Your task to perform on an android device: set an alarm Image 0: 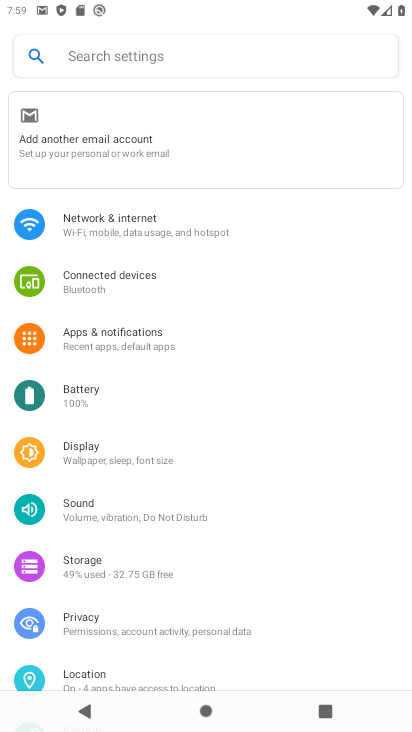
Step 0: press back button
Your task to perform on an android device: set an alarm Image 1: 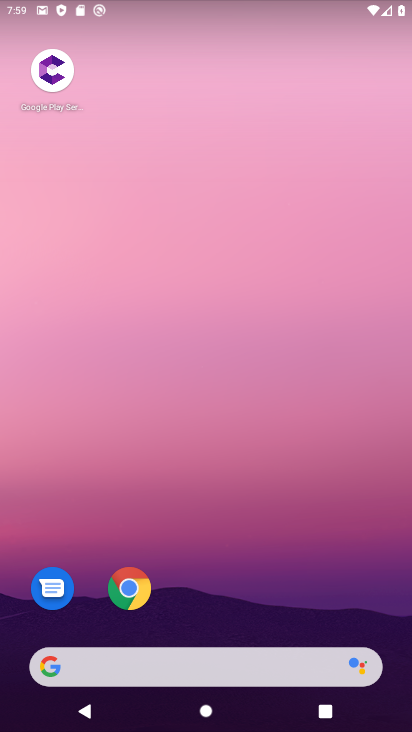
Step 1: drag from (204, 316) to (192, 151)
Your task to perform on an android device: set an alarm Image 2: 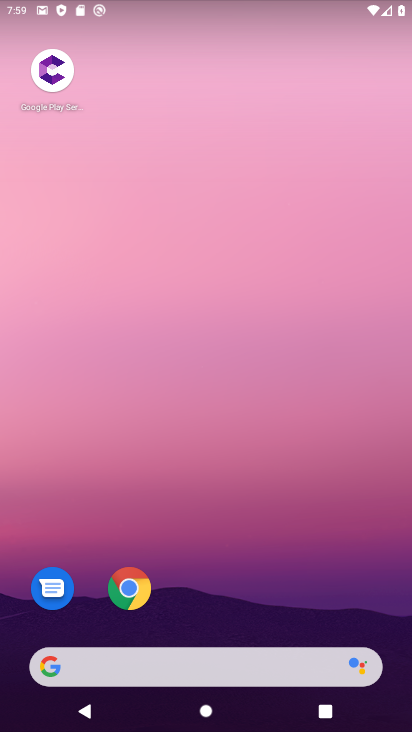
Step 2: drag from (225, 554) to (215, 157)
Your task to perform on an android device: set an alarm Image 3: 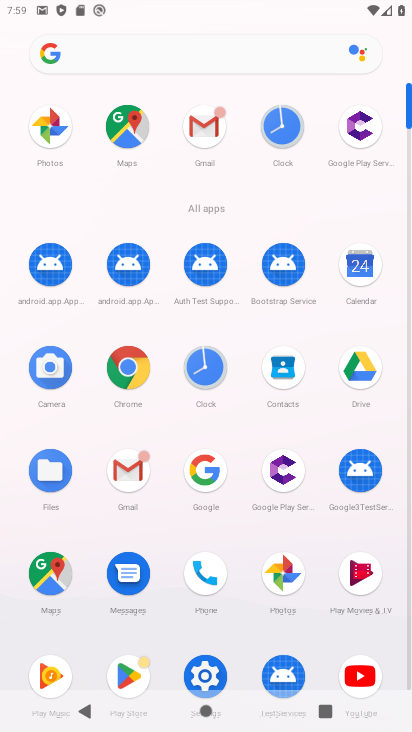
Step 3: drag from (217, 375) to (102, 201)
Your task to perform on an android device: set an alarm Image 4: 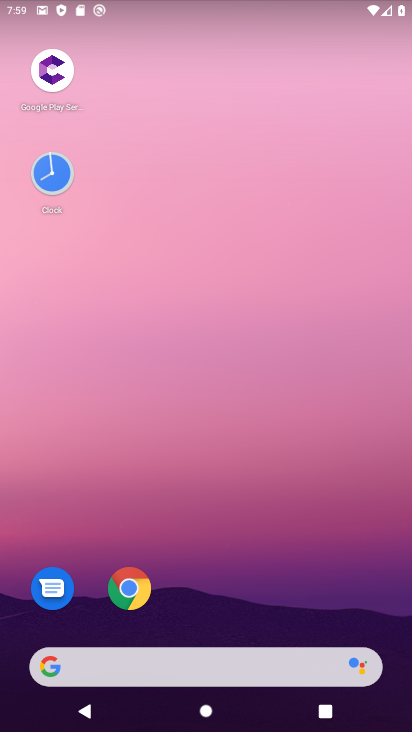
Step 4: click (38, 176)
Your task to perform on an android device: set an alarm Image 5: 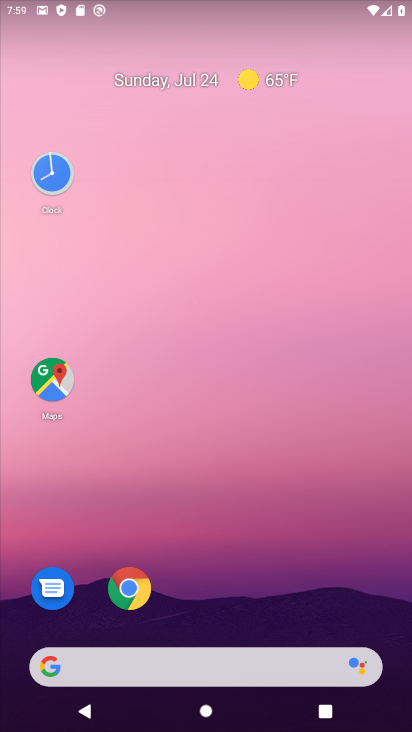
Step 5: click (61, 177)
Your task to perform on an android device: set an alarm Image 6: 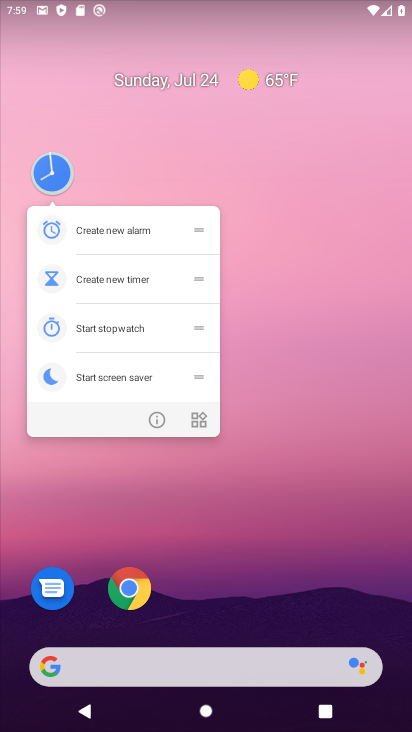
Step 6: click (61, 177)
Your task to perform on an android device: set an alarm Image 7: 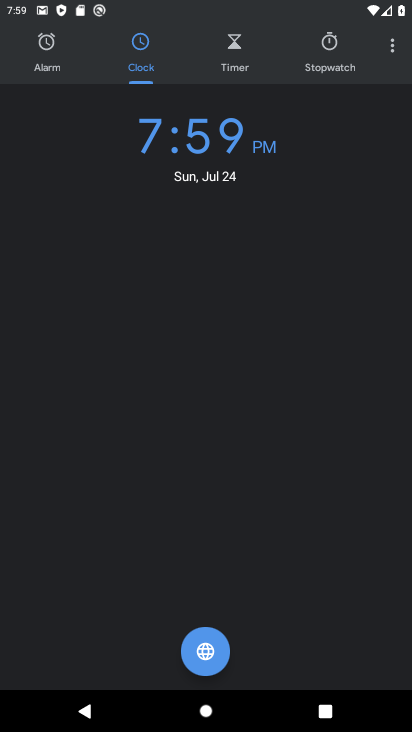
Step 7: click (56, 47)
Your task to perform on an android device: set an alarm Image 8: 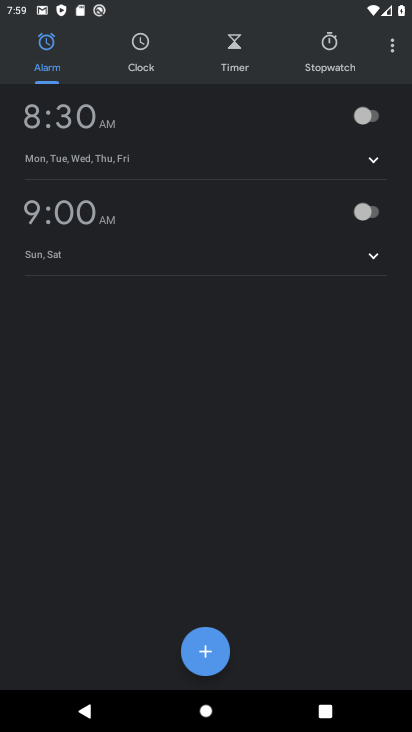
Step 8: click (366, 135)
Your task to perform on an android device: set an alarm Image 9: 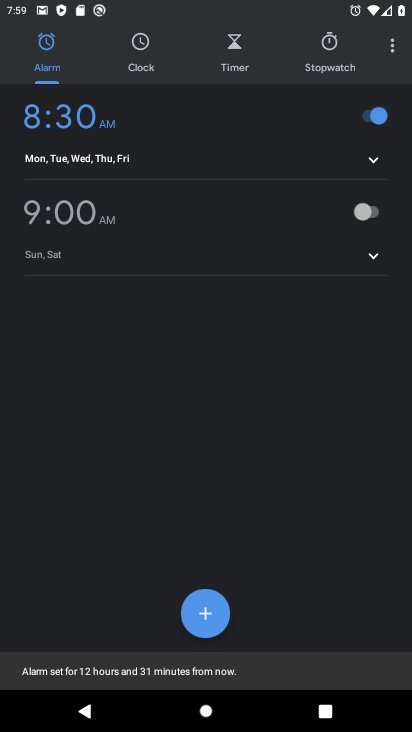
Step 9: task complete